Your task to perform on an android device: stop showing notifications on the lock screen Image 0: 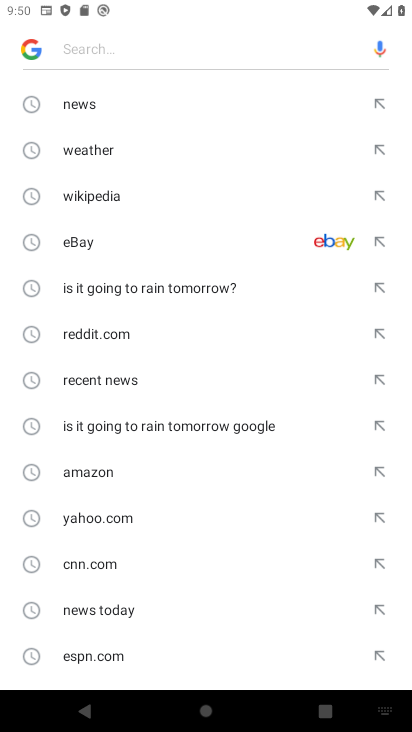
Step 0: press home button
Your task to perform on an android device: stop showing notifications on the lock screen Image 1: 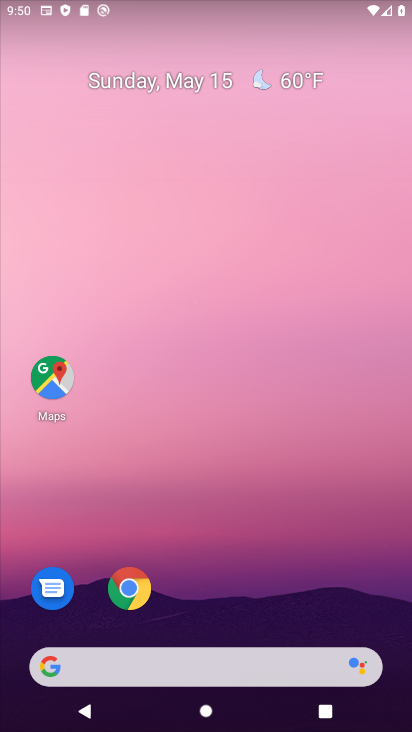
Step 1: drag from (229, 608) to (283, 140)
Your task to perform on an android device: stop showing notifications on the lock screen Image 2: 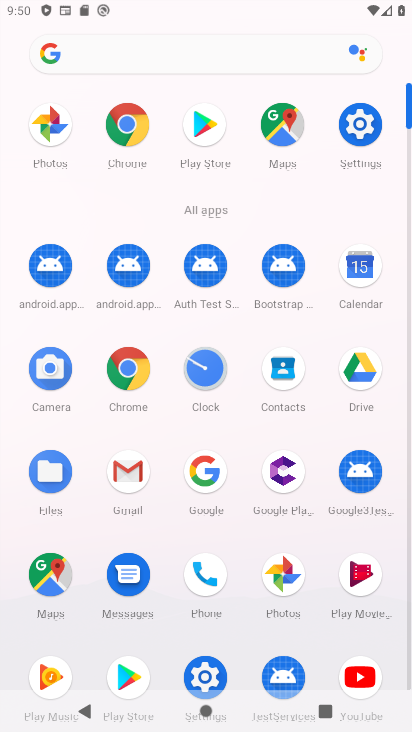
Step 2: click (368, 134)
Your task to perform on an android device: stop showing notifications on the lock screen Image 3: 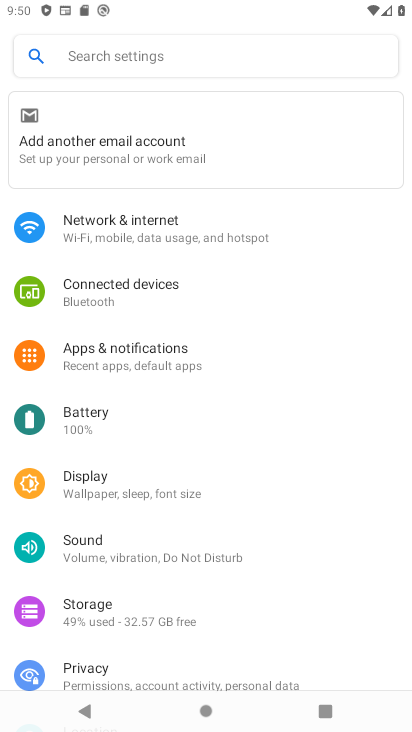
Step 3: click (237, 244)
Your task to perform on an android device: stop showing notifications on the lock screen Image 4: 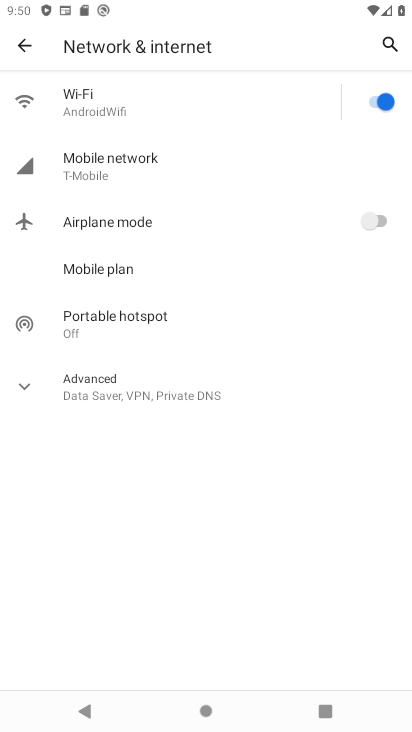
Step 4: click (23, 60)
Your task to perform on an android device: stop showing notifications on the lock screen Image 5: 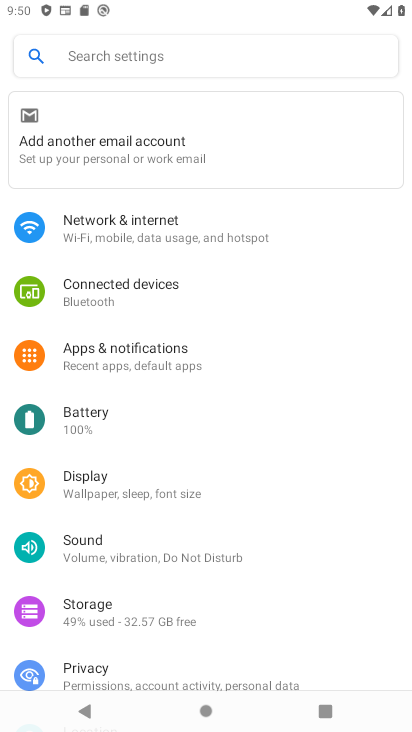
Step 5: click (111, 352)
Your task to perform on an android device: stop showing notifications on the lock screen Image 6: 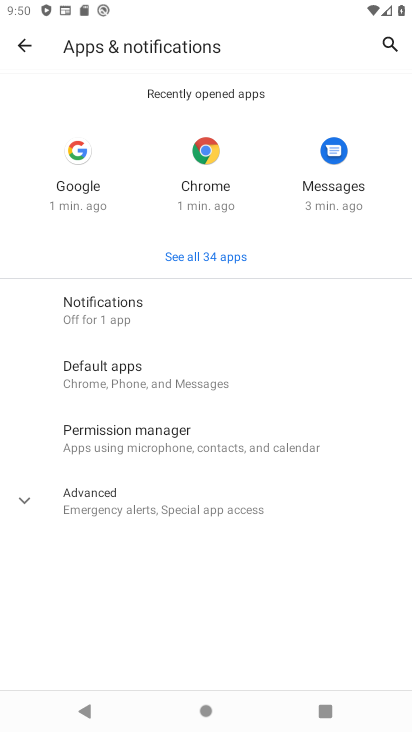
Step 6: click (197, 307)
Your task to perform on an android device: stop showing notifications on the lock screen Image 7: 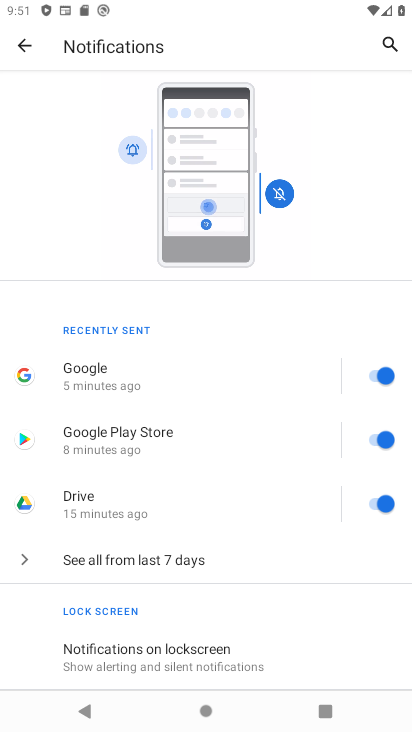
Step 7: drag from (244, 640) to (250, 284)
Your task to perform on an android device: stop showing notifications on the lock screen Image 8: 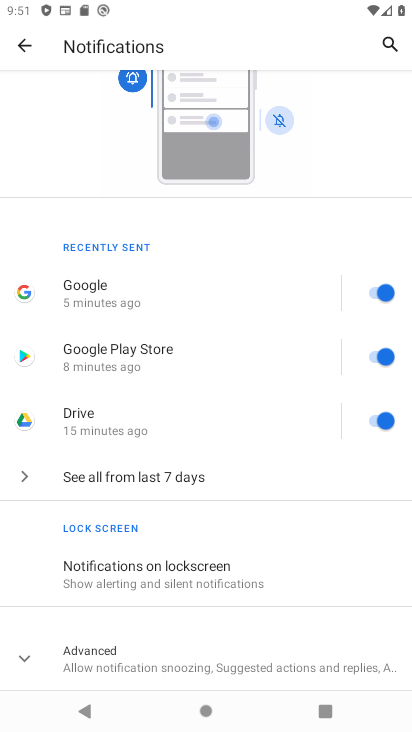
Step 8: click (248, 587)
Your task to perform on an android device: stop showing notifications on the lock screen Image 9: 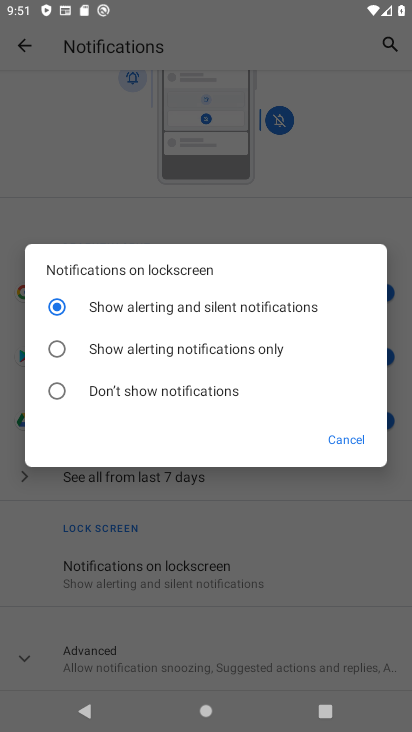
Step 9: click (205, 384)
Your task to perform on an android device: stop showing notifications on the lock screen Image 10: 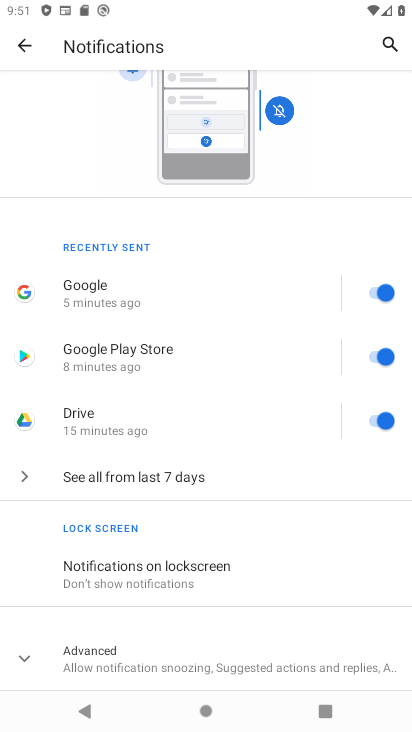
Step 10: task complete